Your task to perform on an android device: empty trash in google photos Image 0: 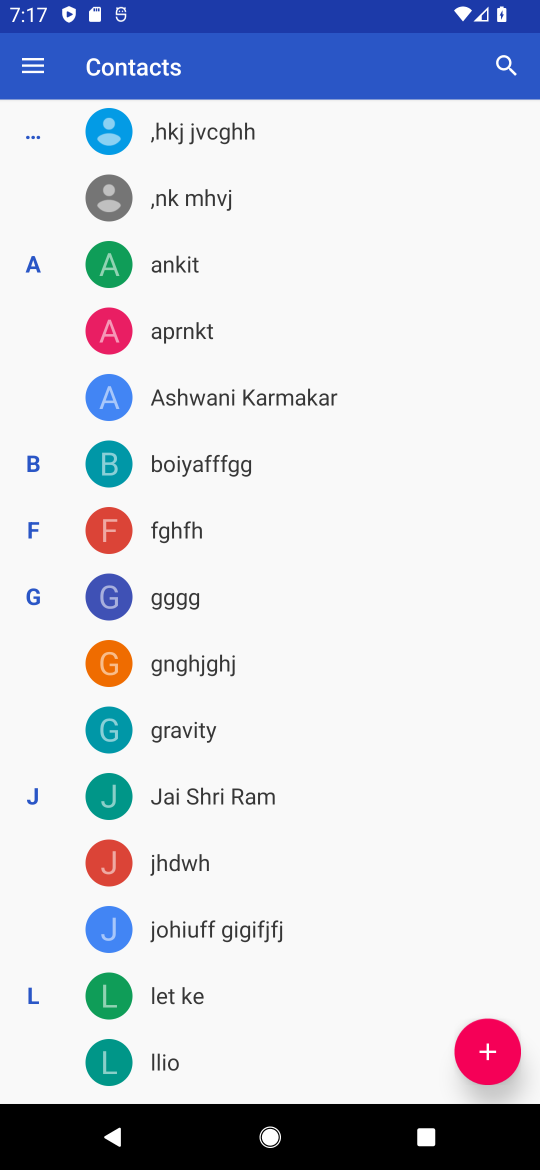
Step 0: press home button
Your task to perform on an android device: empty trash in google photos Image 1: 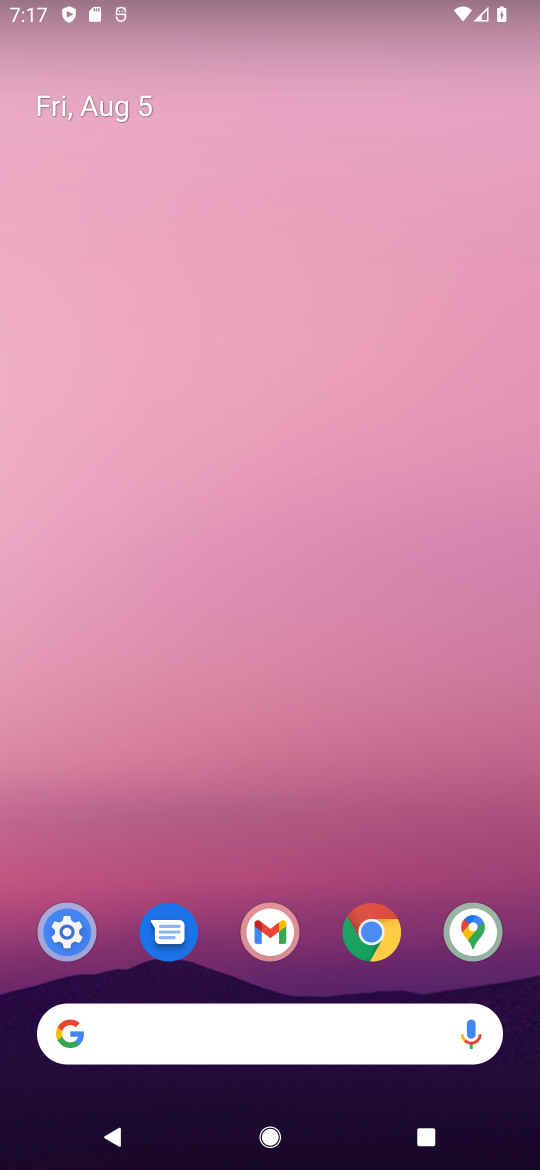
Step 1: drag from (323, 651) to (243, 0)
Your task to perform on an android device: empty trash in google photos Image 2: 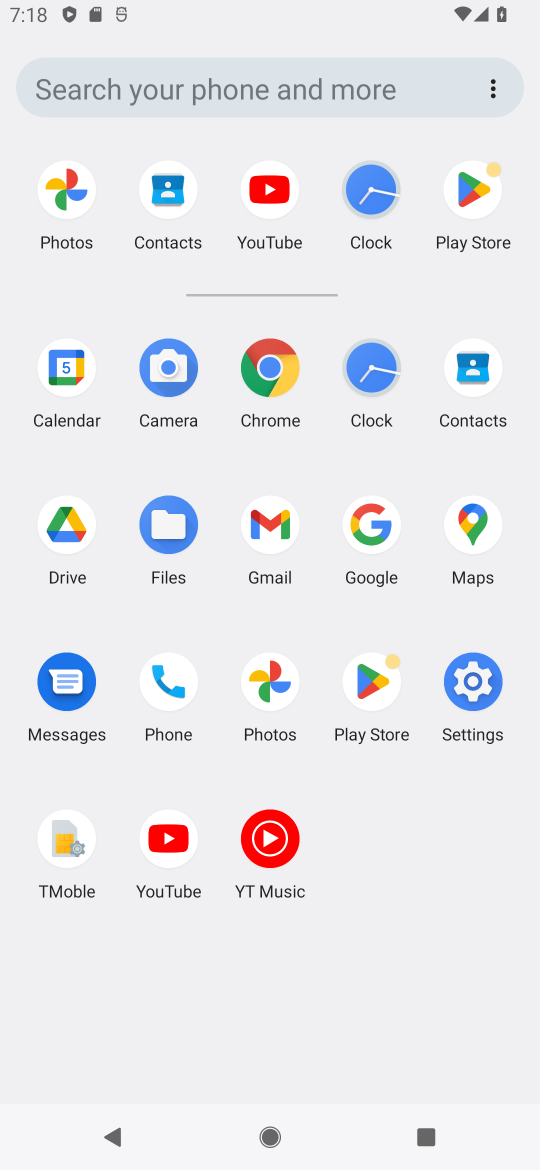
Step 2: click (290, 689)
Your task to perform on an android device: empty trash in google photos Image 3: 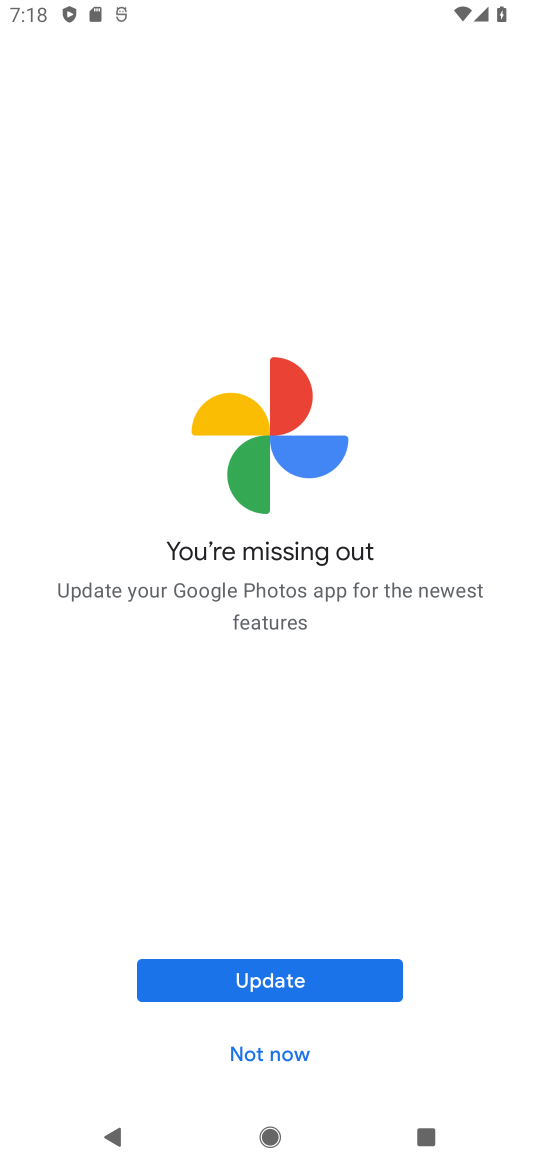
Step 3: click (306, 1056)
Your task to perform on an android device: empty trash in google photos Image 4: 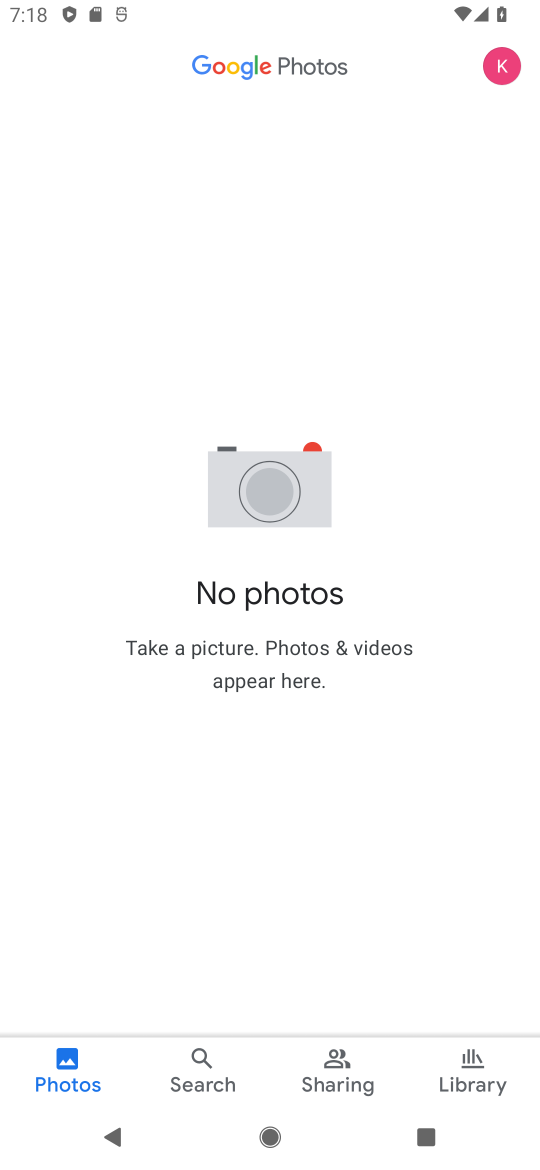
Step 4: click (469, 1061)
Your task to perform on an android device: empty trash in google photos Image 5: 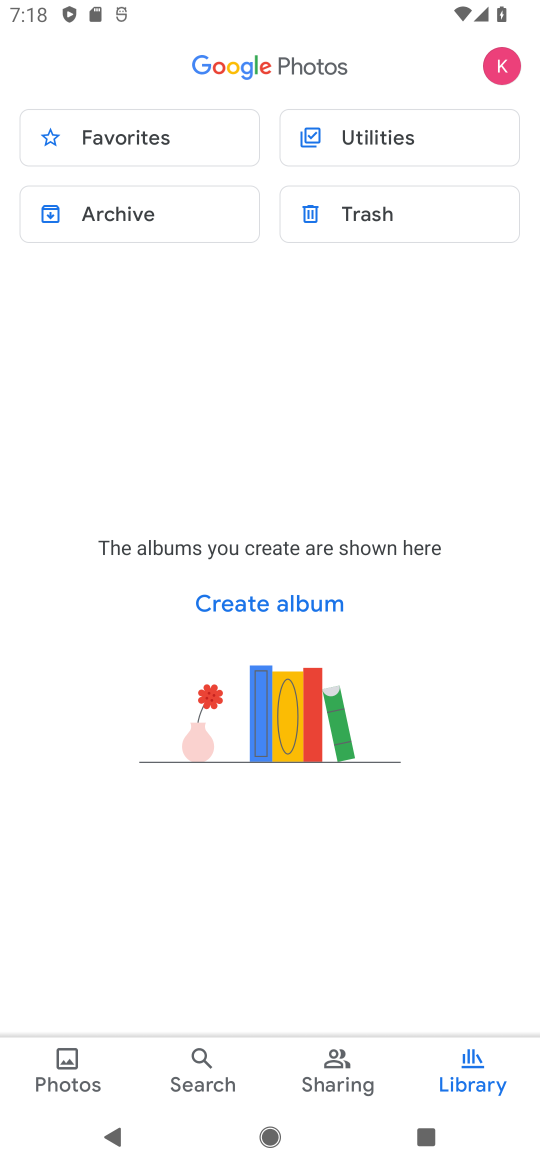
Step 5: click (369, 208)
Your task to perform on an android device: empty trash in google photos Image 6: 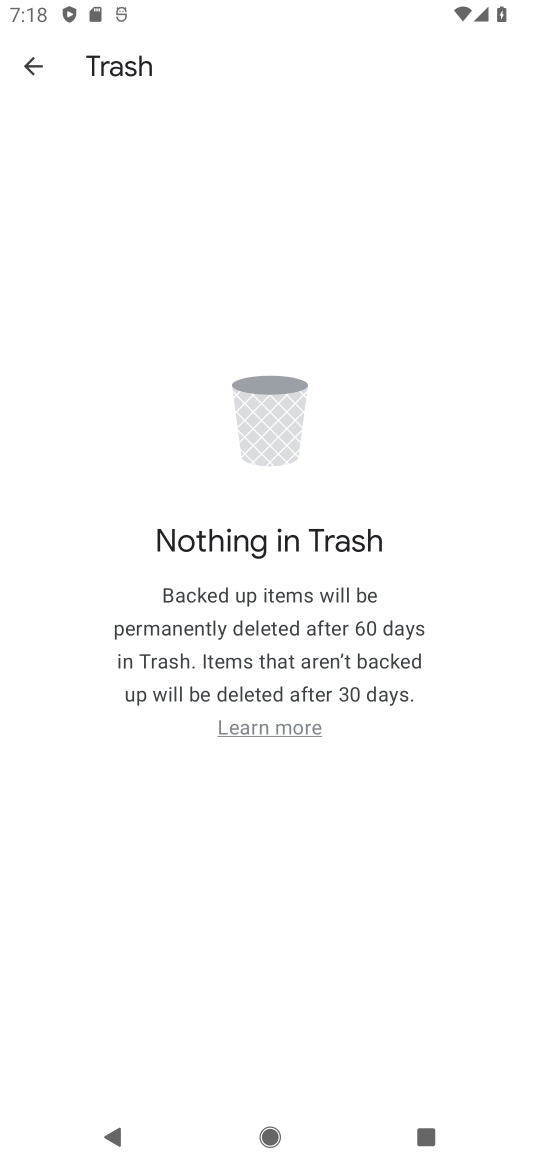
Step 6: task complete